Your task to perform on an android device: set the timer Image 0: 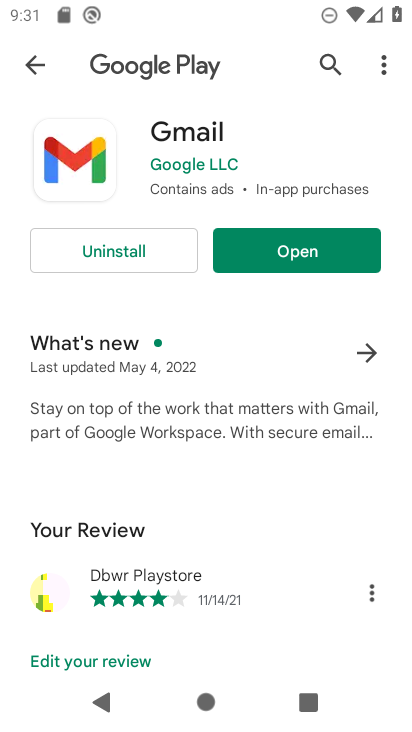
Step 0: press home button
Your task to perform on an android device: set the timer Image 1: 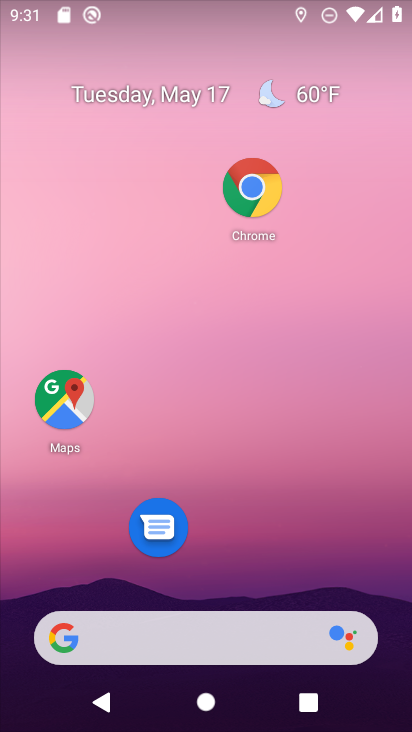
Step 1: drag from (246, 559) to (223, 249)
Your task to perform on an android device: set the timer Image 2: 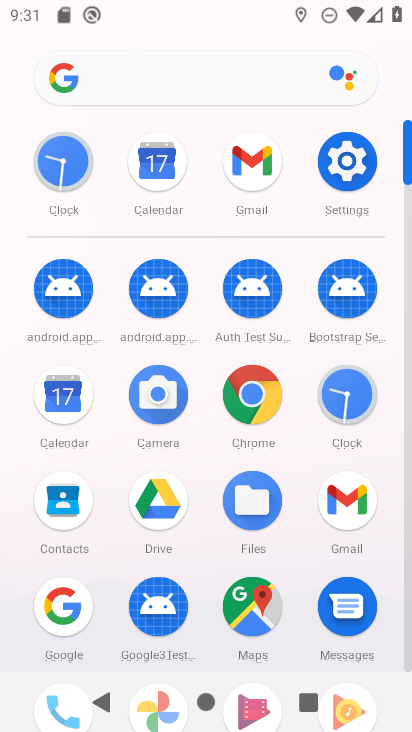
Step 2: click (341, 387)
Your task to perform on an android device: set the timer Image 3: 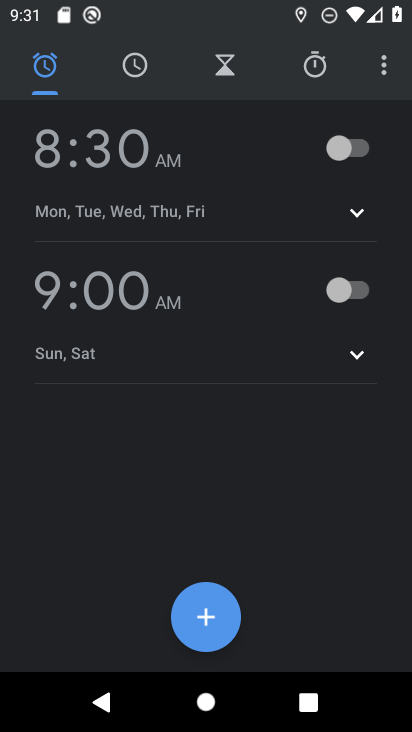
Step 3: click (229, 76)
Your task to perform on an android device: set the timer Image 4: 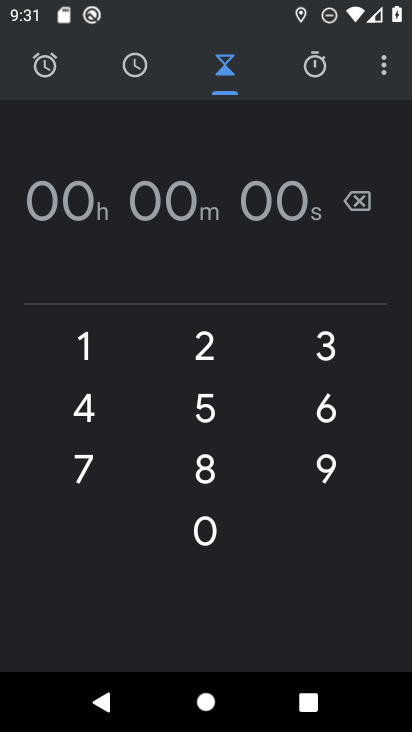
Step 4: task complete